Your task to perform on an android device: show emergency info Image 0: 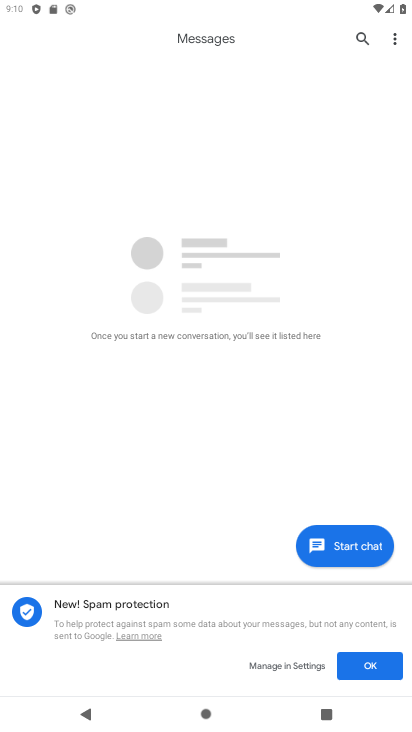
Step 0: press home button
Your task to perform on an android device: show emergency info Image 1: 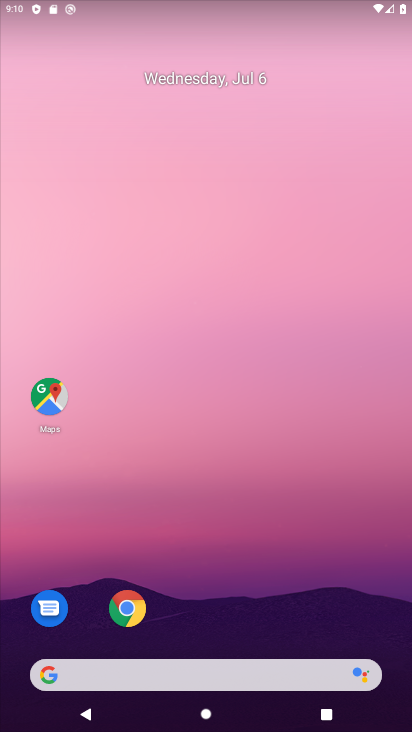
Step 1: drag from (189, 668) to (241, 12)
Your task to perform on an android device: show emergency info Image 2: 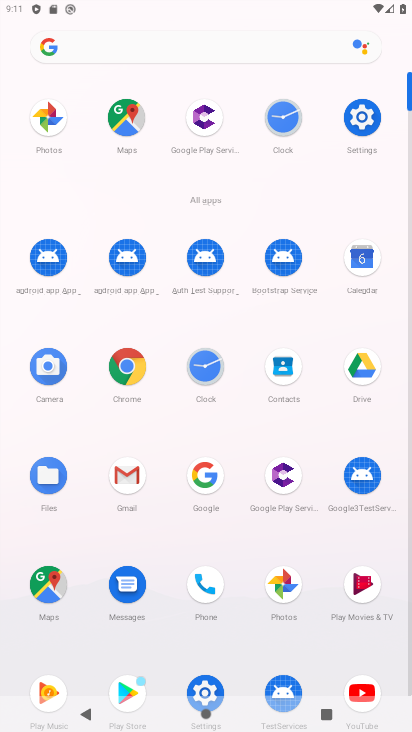
Step 2: click (380, 112)
Your task to perform on an android device: show emergency info Image 3: 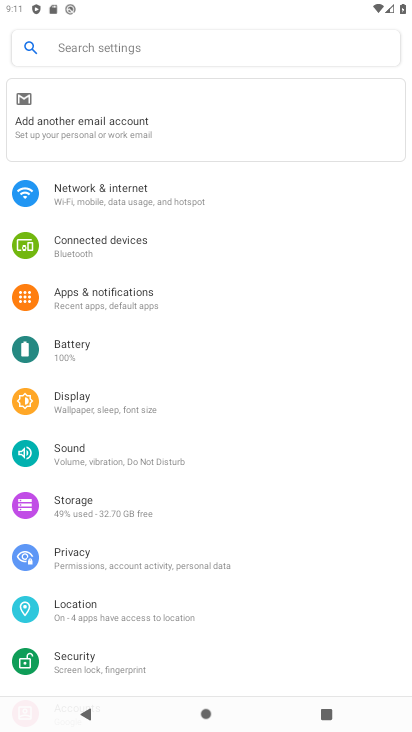
Step 3: drag from (129, 638) to (110, 101)
Your task to perform on an android device: show emergency info Image 4: 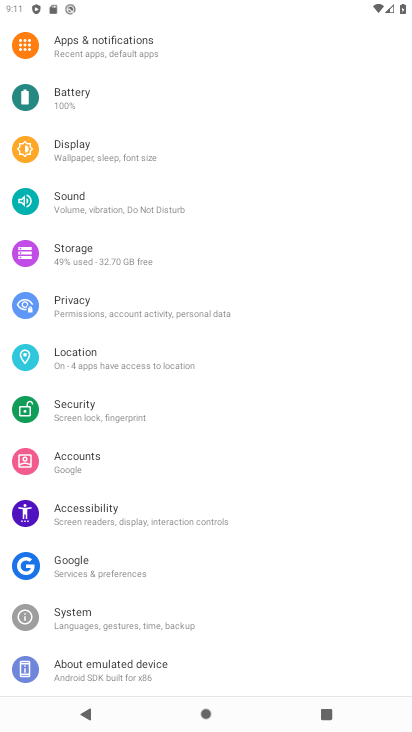
Step 4: click (113, 667)
Your task to perform on an android device: show emergency info Image 5: 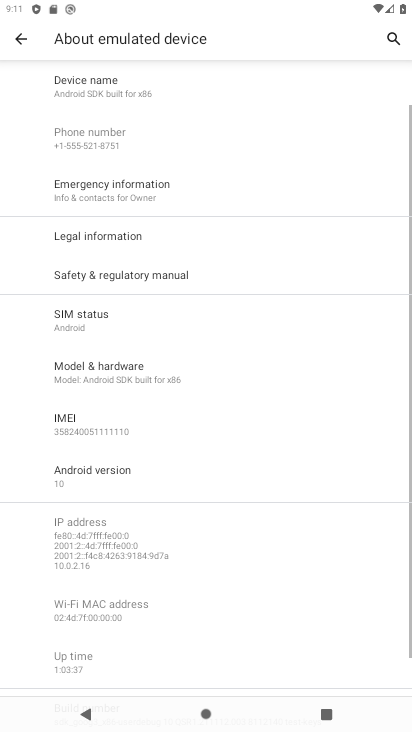
Step 5: click (98, 198)
Your task to perform on an android device: show emergency info Image 6: 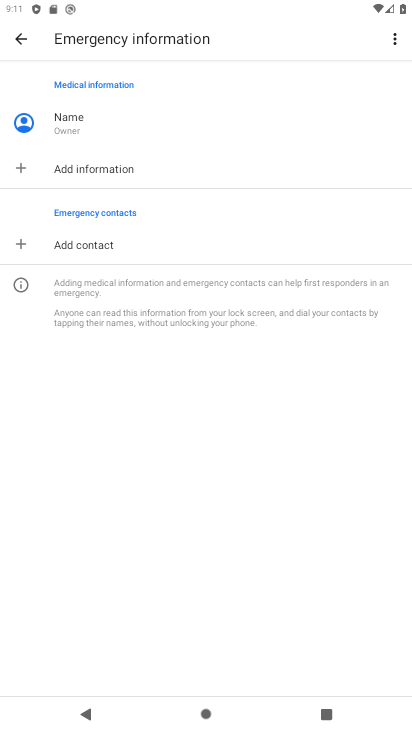
Step 6: task complete